Your task to perform on an android device: Open Chrome and go to the settings page Image 0: 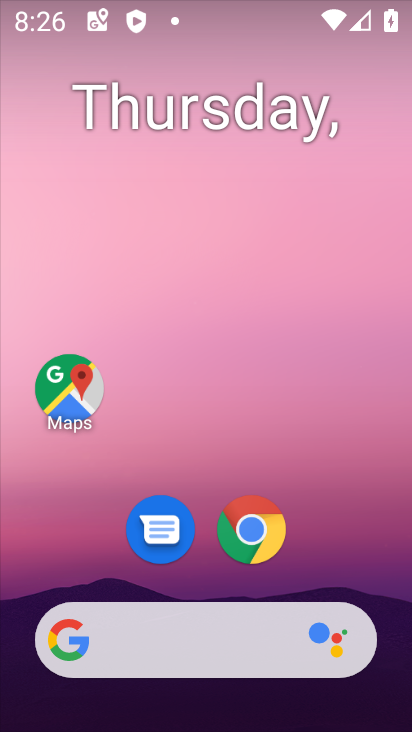
Step 0: click (250, 537)
Your task to perform on an android device: Open Chrome and go to the settings page Image 1: 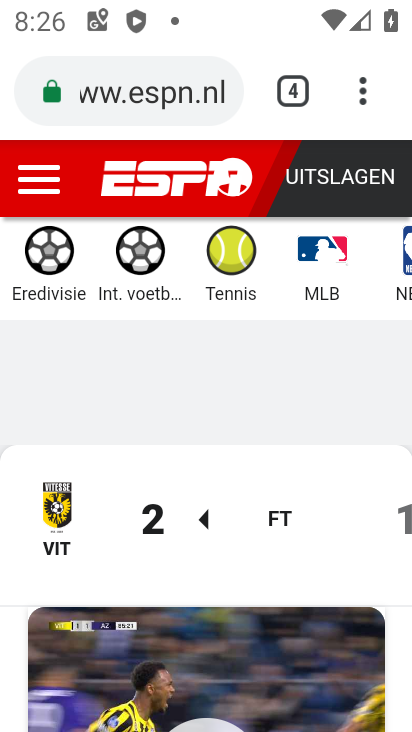
Step 1: click (362, 98)
Your task to perform on an android device: Open Chrome and go to the settings page Image 2: 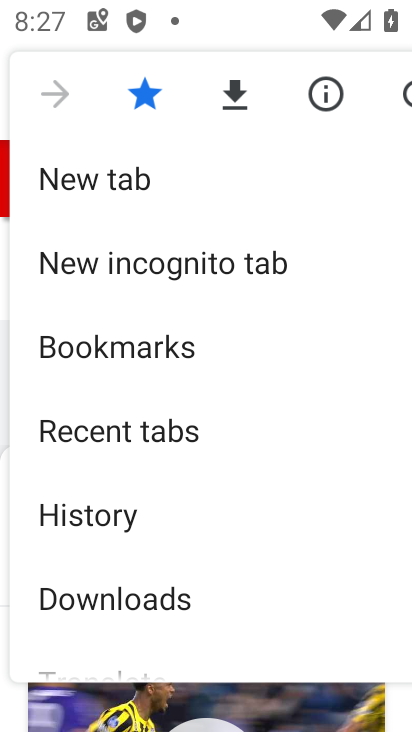
Step 2: drag from (93, 630) to (95, 187)
Your task to perform on an android device: Open Chrome and go to the settings page Image 3: 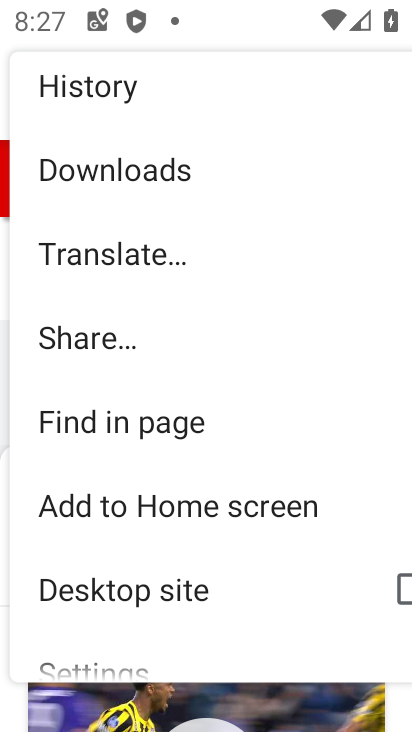
Step 3: drag from (137, 623) to (139, 251)
Your task to perform on an android device: Open Chrome and go to the settings page Image 4: 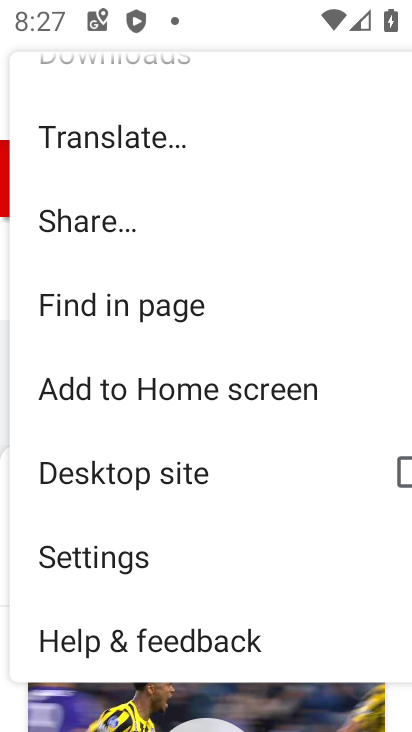
Step 4: click (109, 558)
Your task to perform on an android device: Open Chrome and go to the settings page Image 5: 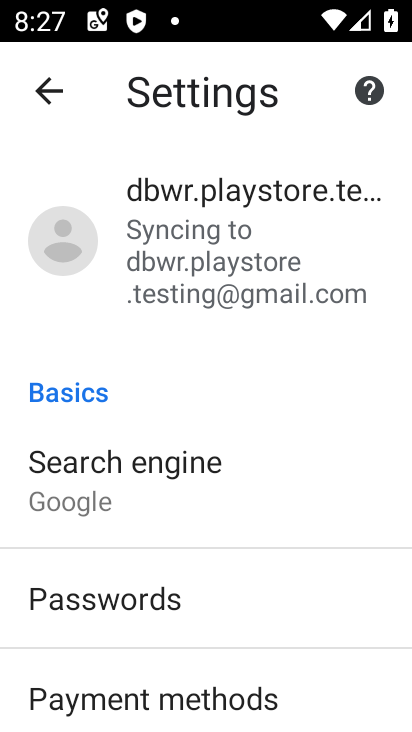
Step 5: task complete